Your task to perform on an android device: toggle notifications settings in the gmail app Image 0: 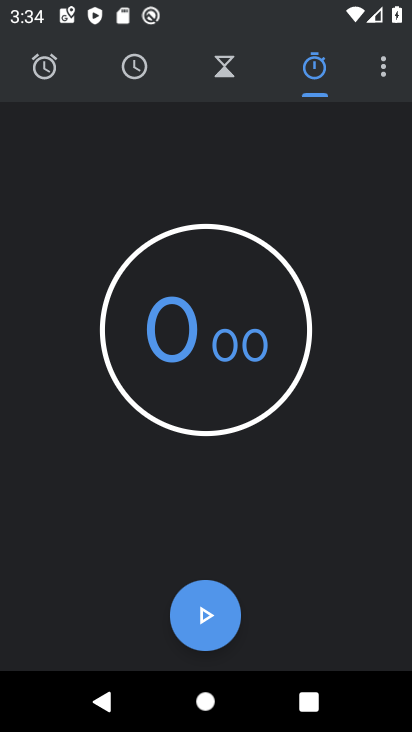
Step 0: press home button
Your task to perform on an android device: toggle notifications settings in the gmail app Image 1: 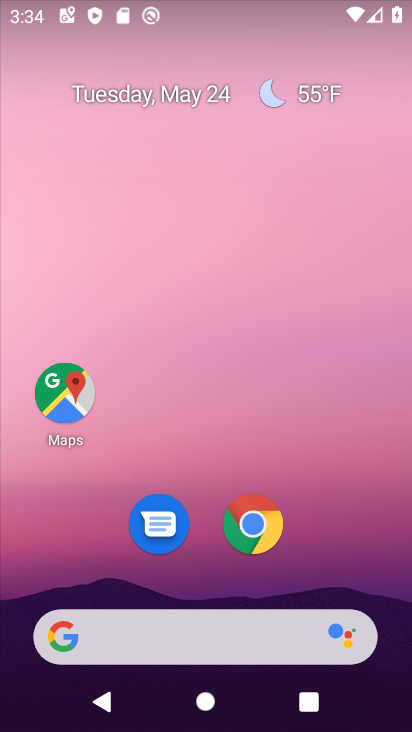
Step 1: drag from (308, 522) to (338, 77)
Your task to perform on an android device: toggle notifications settings in the gmail app Image 2: 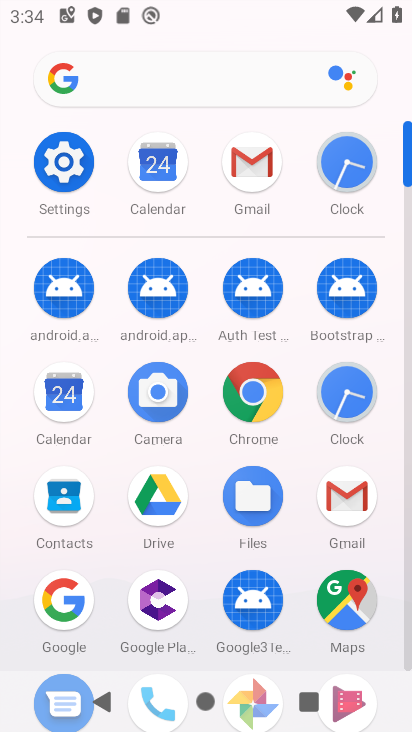
Step 2: click (249, 163)
Your task to perform on an android device: toggle notifications settings in the gmail app Image 3: 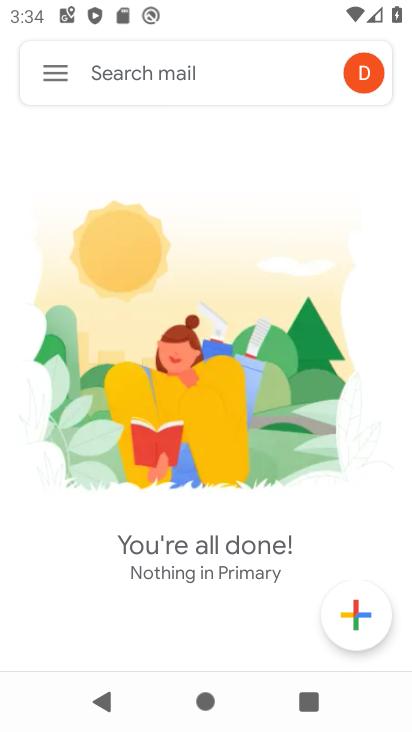
Step 3: click (60, 70)
Your task to perform on an android device: toggle notifications settings in the gmail app Image 4: 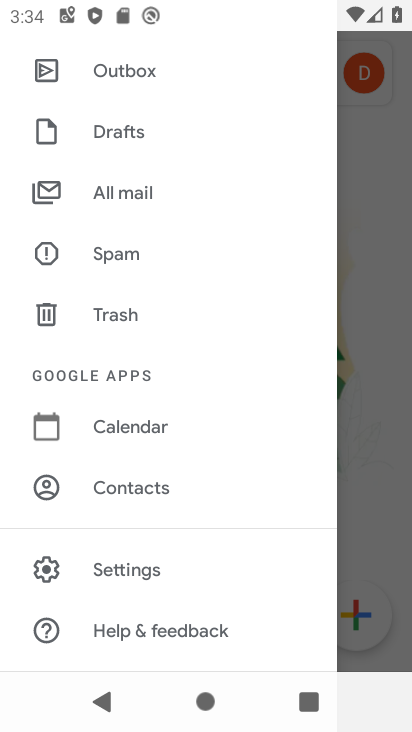
Step 4: click (137, 570)
Your task to perform on an android device: toggle notifications settings in the gmail app Image 5: 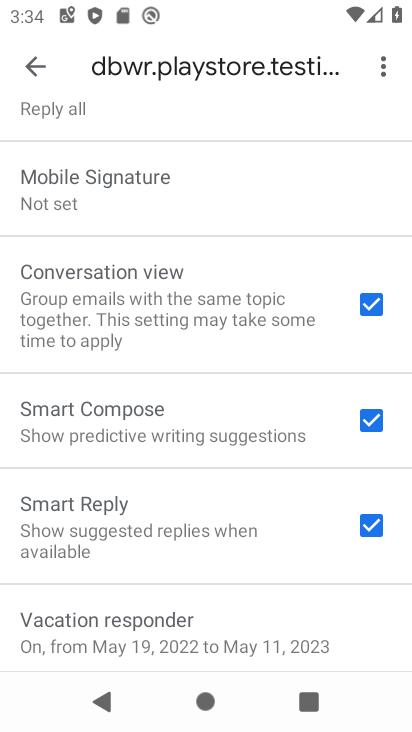
Step 5: drag from (186, 241) to (191, 536)
Your task to perform on an android device: toggle notifications settings in the gmail app Image 6: 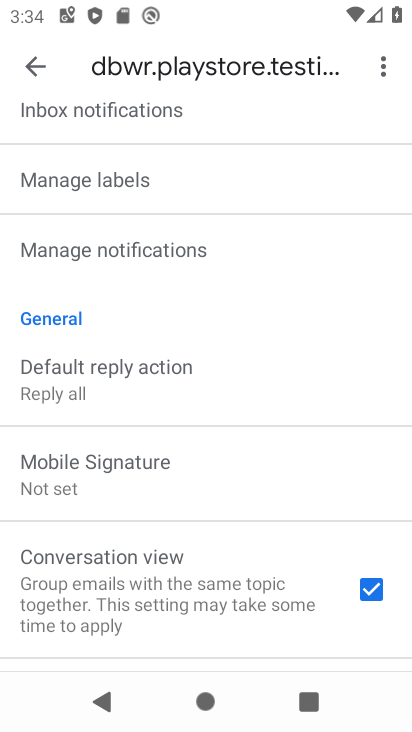
Step 6: click (193, 252)
Your task to perform on an android device: toggle notifications settings in the gmail app Image 7: 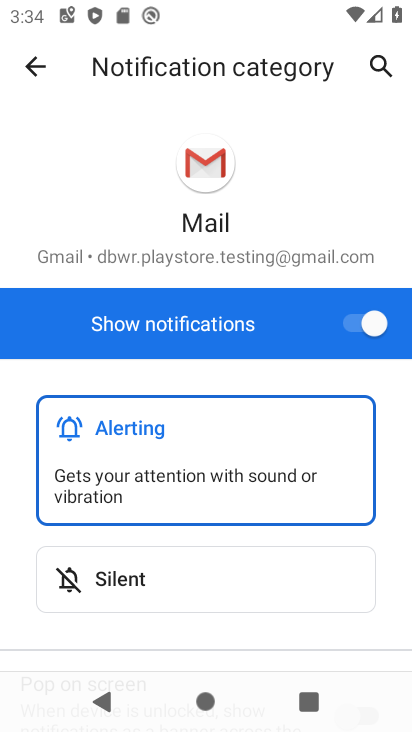
Step 7: click (354, 326)
Your task to perform on an android device: toggle notifications settings in the gmail app Image 8: 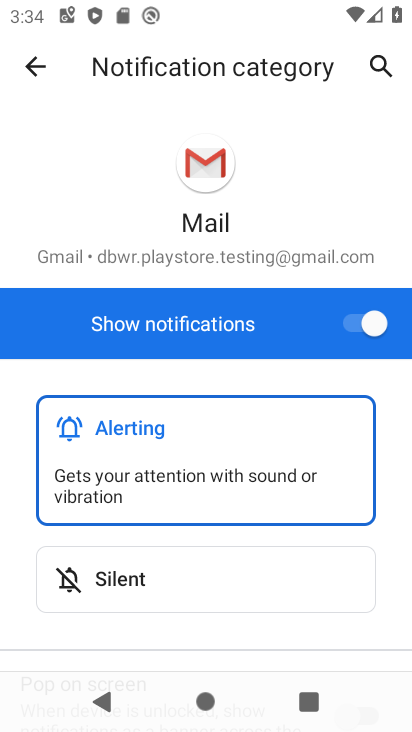
Step 8: click (367, 325)
Your task to perform on an android device: toggle notifications settings in the gmail app Image 9: 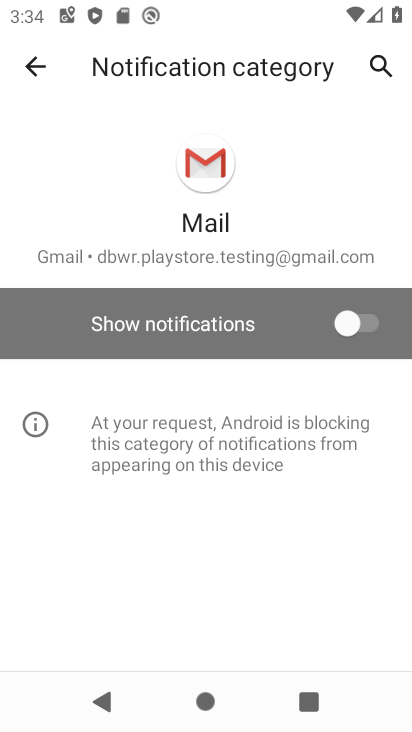
Step 9: task complete